Your task to perform on an android device: Go to ESPN.com Image 0: 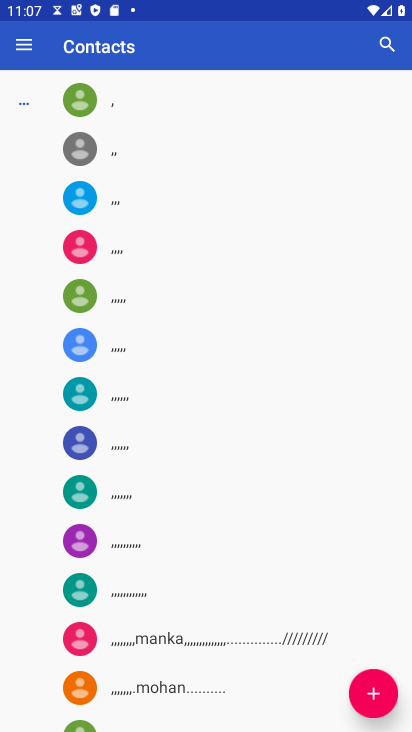
Step 0: press home button
Your task to perform on an android device: Go to ESPN.com Image 1: 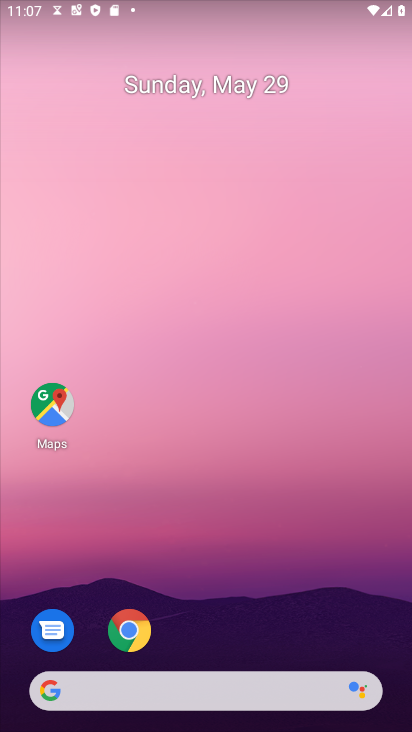
Step 1: click (129, 616)
Your task to perform on an android device: Go to ESPN.com Image 2: 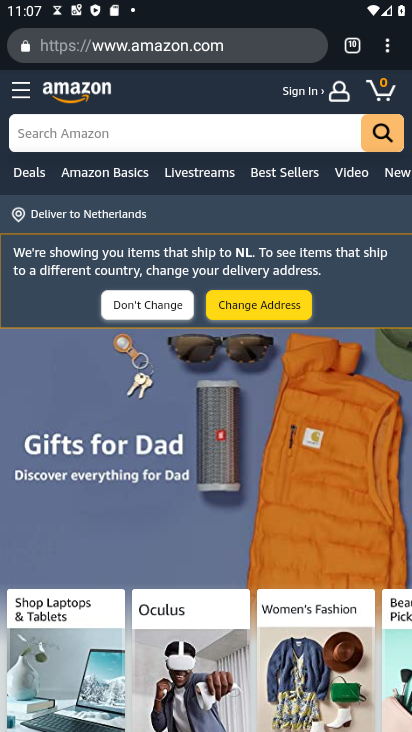
Step 2: click (362, 39)
Your task to perform on an android device: Go to ESPN.com Image 3: 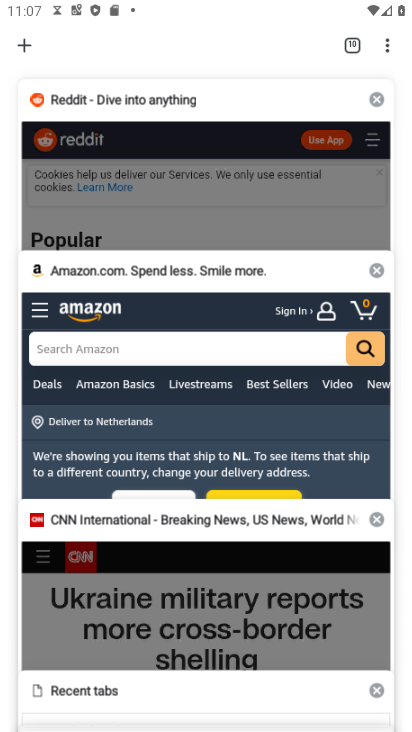
Step 3: drag from (152, 618) to (292, 166)
Your task to perform on an android device: Go to ESPN.com Image 4: 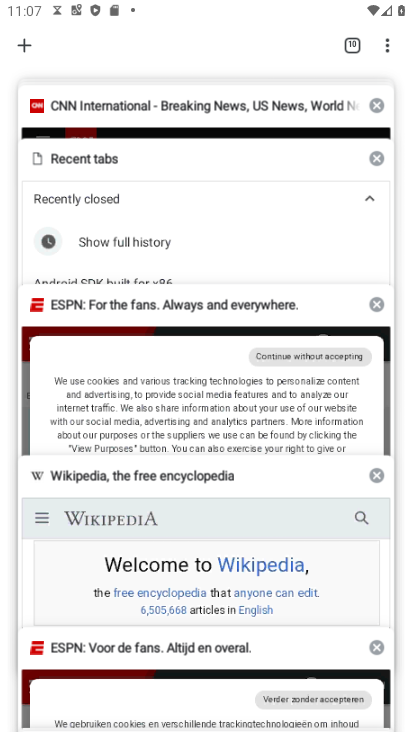
Step 4: drag from (170, 517) to (260, 97)
Your task to perform on an android device: Go to ESPN.com Image 5: 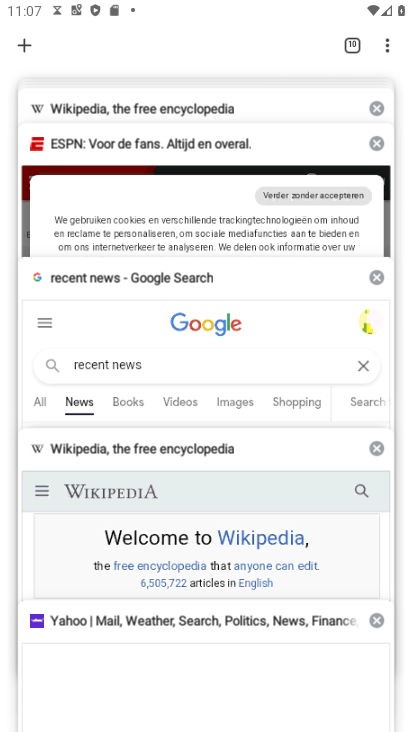
Step 5: click (154, 159)
Your task to perform on an android device: Go to ESPN.com Image 6: 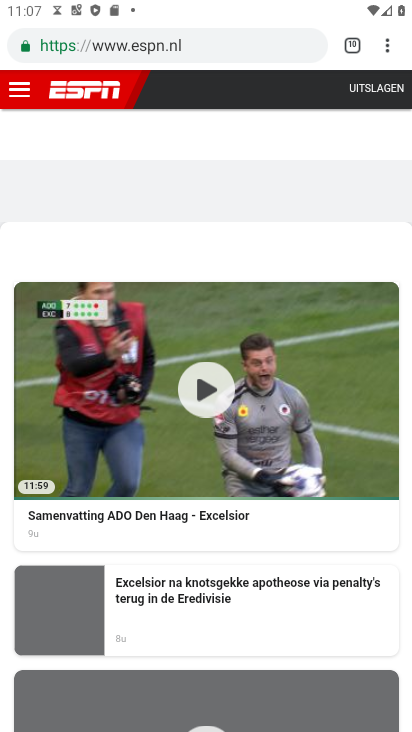
Step 6: task complete